Your task to perform on an android device: Open Google Maps and go to "Timeline" Image 0: 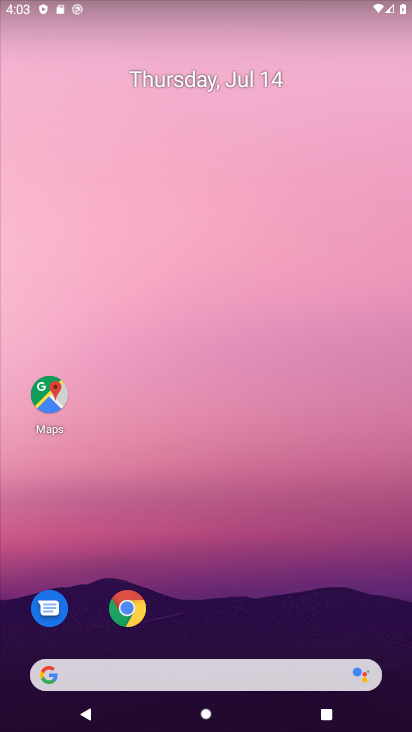
Step 0: click (62, 403)
Your task to perform on an android device: Open Google Maps and go to "Timeline" Image 1: 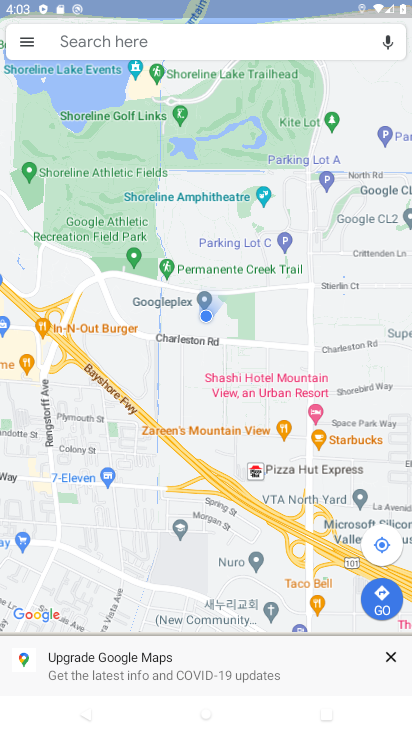
Step 1: click (26, 49)
Your task to perform on an android device: Open Google Maps and go to "Timeline" Image 2: 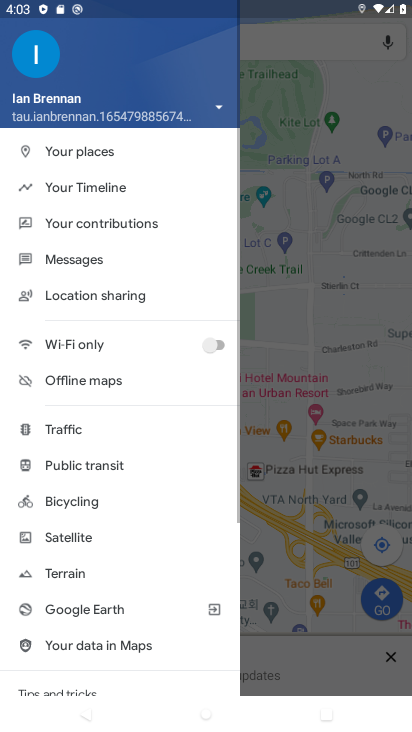
Step 2: click (115, 190)
Your task to perform on an android device: Open Google Maps and go to "Timeline" Image 3: 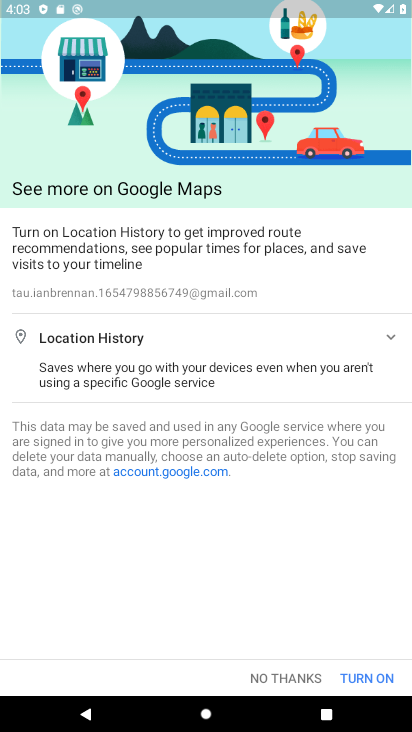
Step 3: click (357, 685)
Your task to perform on an android device: Open Google Maps and go to "Timeline" Image 4: 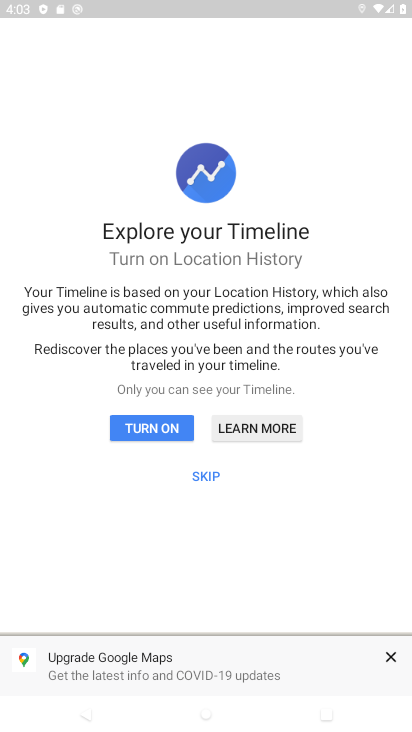
Step 4: click (184, 426)
Your task to perform on an android device: Open Google Maps and go to "Timeline" Image 5: 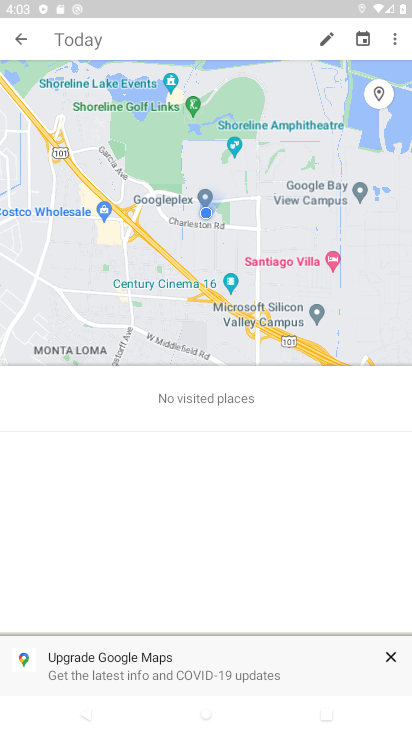
Step 5: task complete